Your task to perform on an android device: Open display settings Image 0: 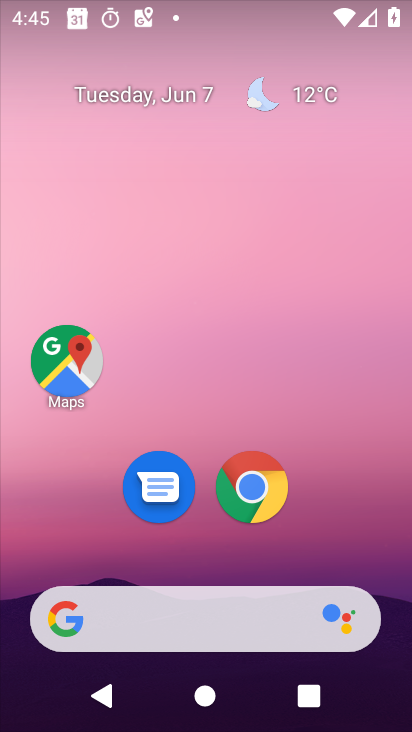
Step 0: drag from (178, 500) to (217, 83)
Your task to perform on an android device: Open display settings Image 1: 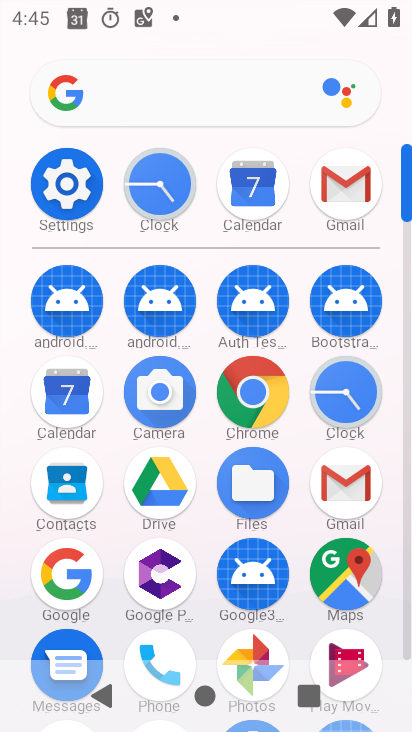
Step 1: click (69, 175)
Your task to perform on an android device: Open display settings Image 2: 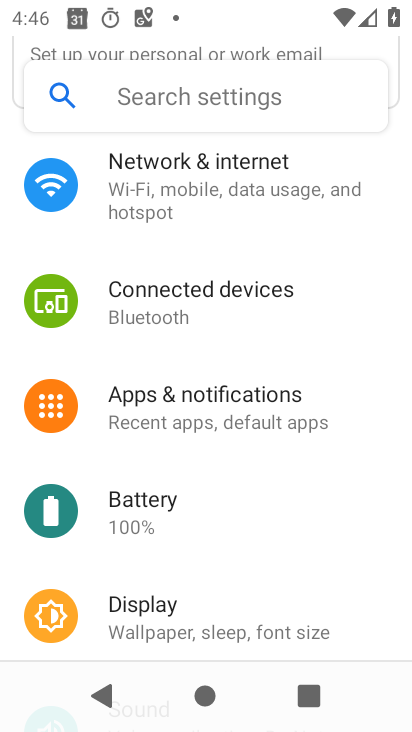
Step 2: click (186, 621)
Your task to perform on an android device: Open display settings Image 3: 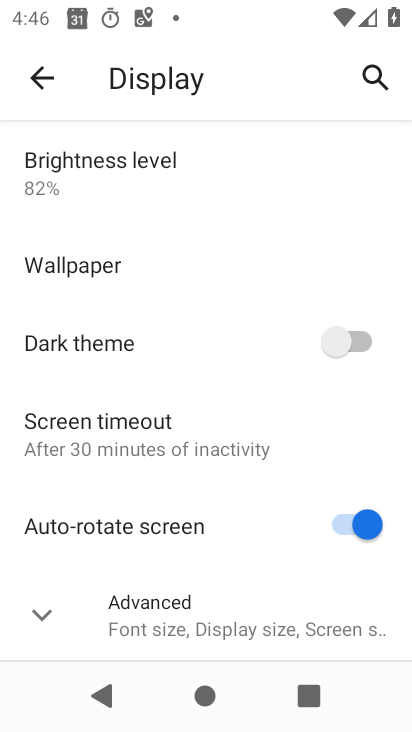
Step 3: task complete